Your task to perform on an android device: change timer sound Image 0: 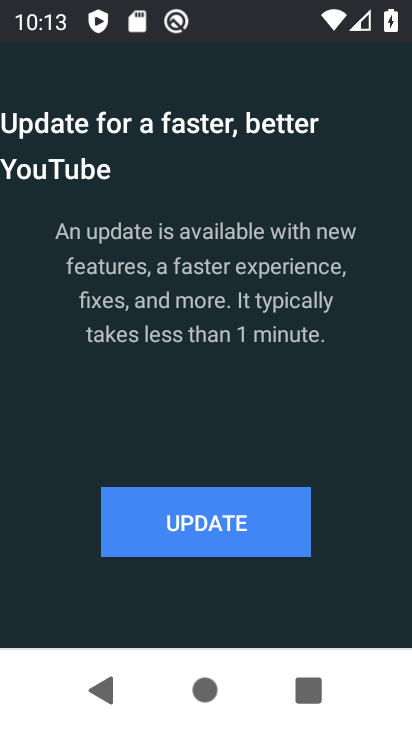
Step 0: press home button
Your task to perform on an android device: change timer sound Image 1: 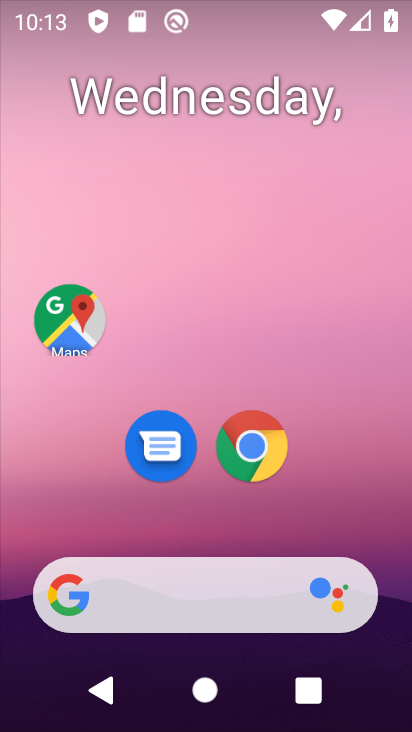
Step 1: drag from (320, 470) to (335, 163)
Your task to perform on an android device: change timer sound Image 2: 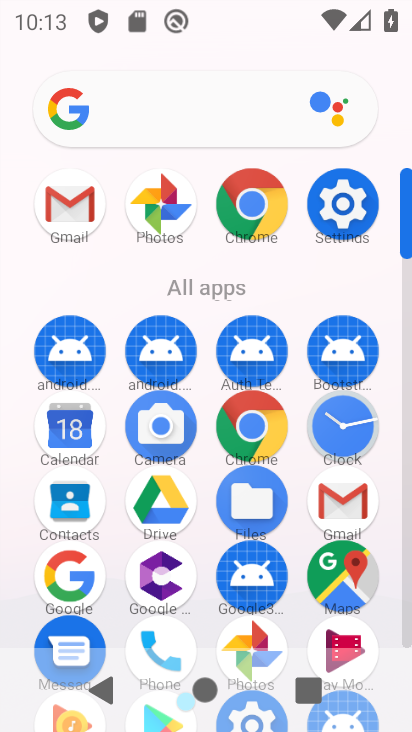
Step 2: click (322, 429)
Your task to perform on an android device: change timer sound Image 3: 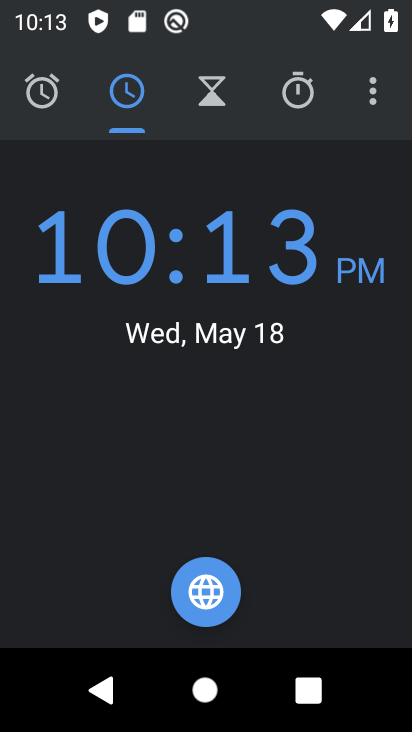
Step 3: click (376, 88)
Your task to perform on an android device: change timer sound Image 4: 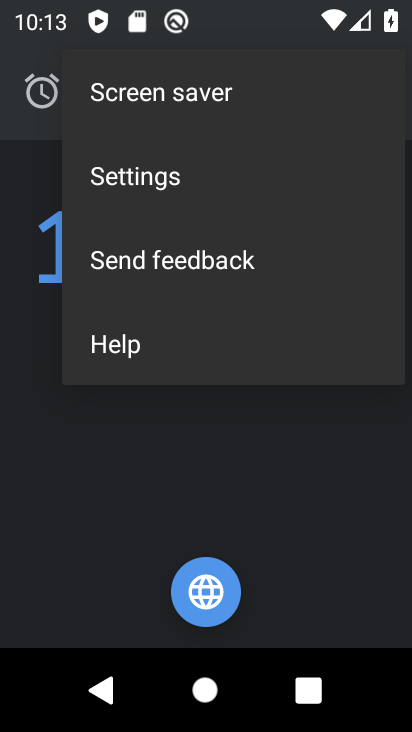
Step 4: click (190, 166)
Your task to perform on an android device: change timer sound Image 5: 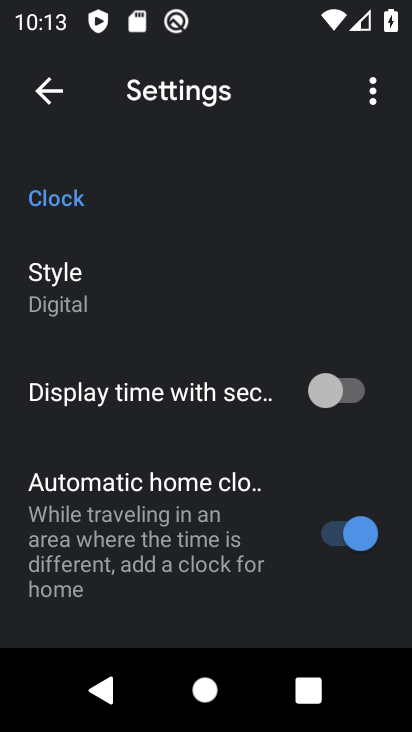
Step 5: drag from (162, 415) to (187, 232)
Your task to perform on an android device: change timer sound Image 6: 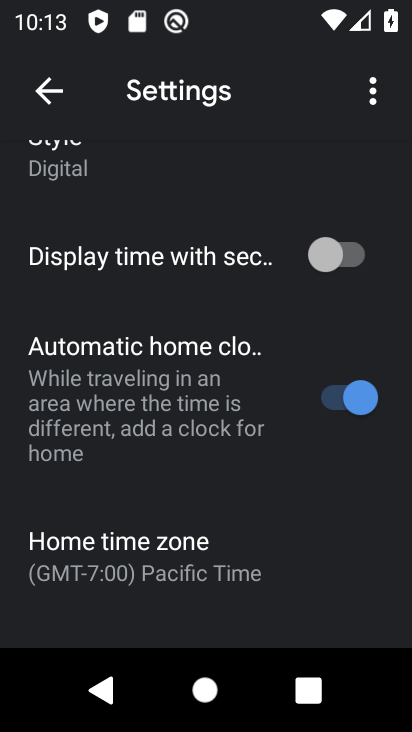
Step 6: drag from (187, 446) to (193, 340)
Your task to perform on an android device: change timer sound Image 7: 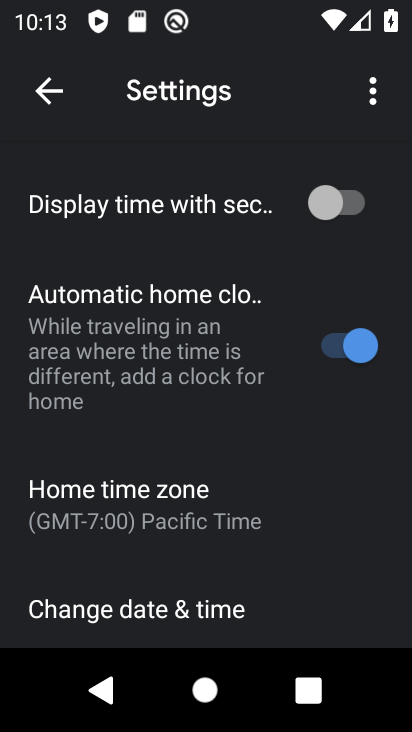
Step 7: drag from (210, 584) to (252, 157)
Your task to perform on an android device: change timer sound Image 8: 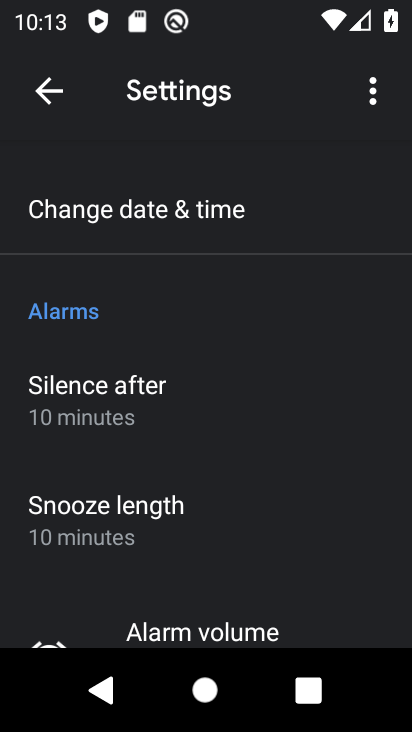
Step 8: drag from (220, 588) to (236, 288)
Your task to perform on an android device: change timer sound Image 9: 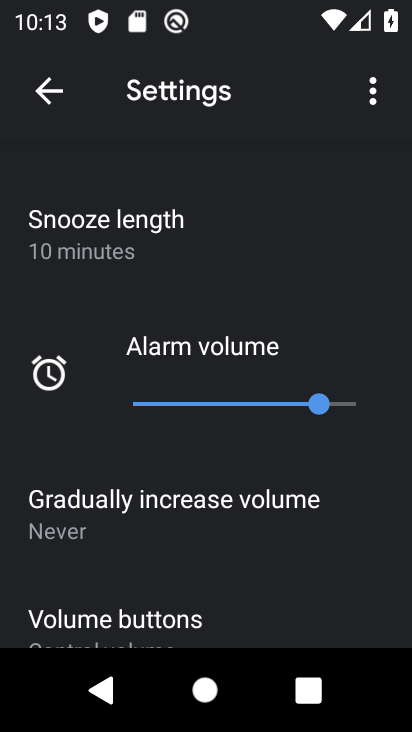
Step 9: drag from (243, 548) to (250, 250)
Your task to perform on an android device: change timer sound Image 10: 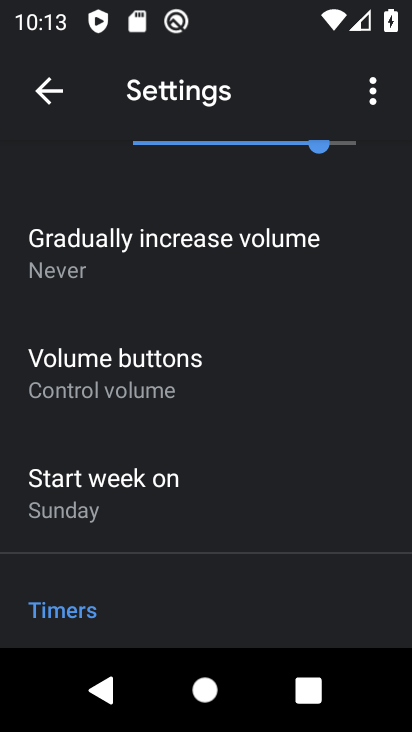
Step 10: drag from (228, 562) to (241, 286)
Your task to perform on an android device: change timer sound Image 11: 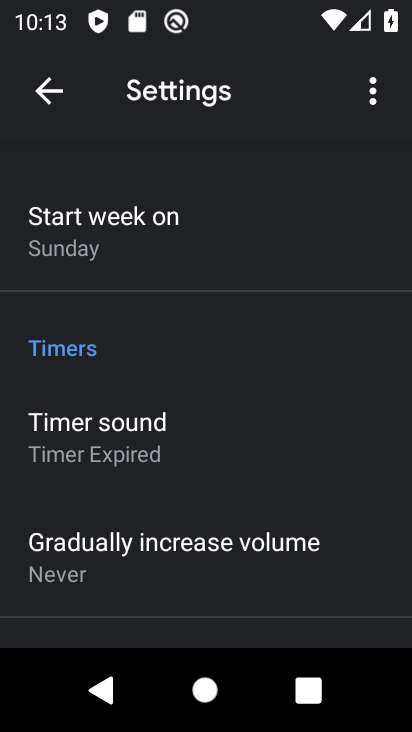
Step 11: click (163, 446)
Your task to perform on an android device: change timer sound Image 12: 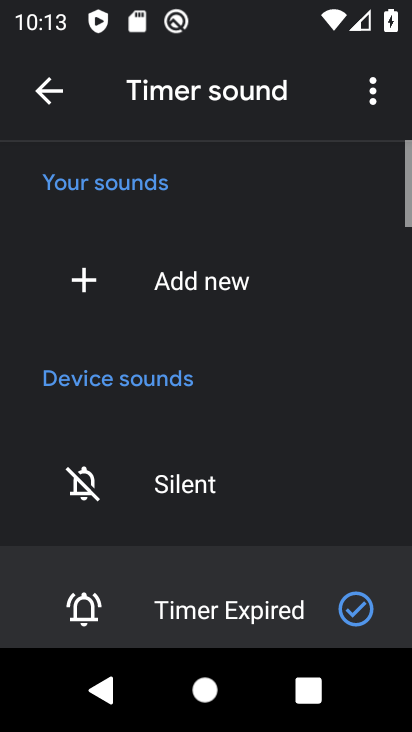
Step 12: drag from (205, 533) to (240, 302)
Your task to perform on an android device: change timer sound Image 13: 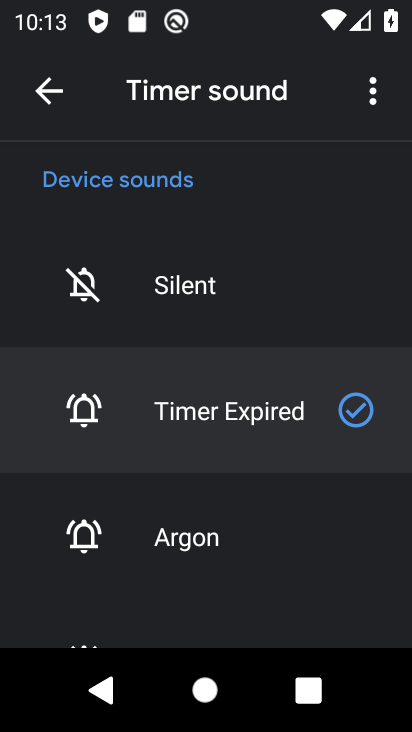
Step 13: click (223, 538)
Your task to perform on an android device: change timer sound Image 14: 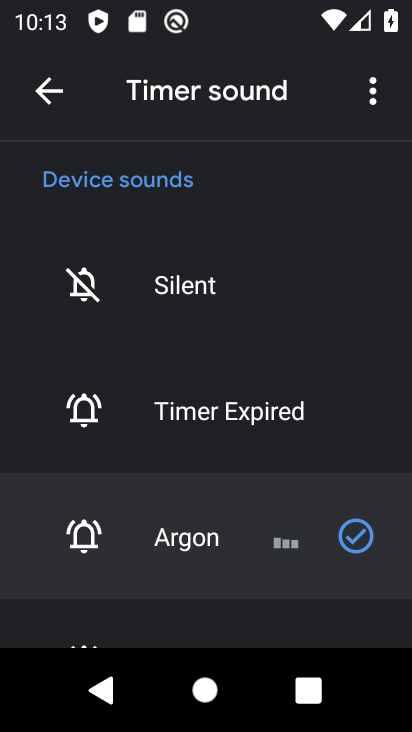
Step 14: task complete